Your task to perform on an android device: Toggle the flashlight Image 0: 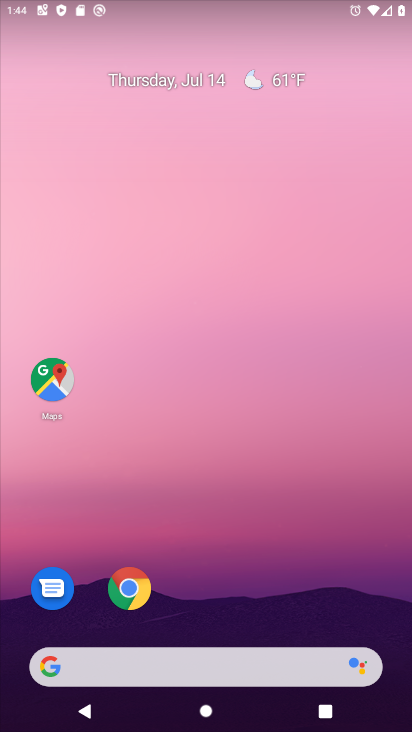
Step 0: drag from (245, 637) to (245, 359)
Your task to perform on an android device: Toggle the flashlight Image 1: 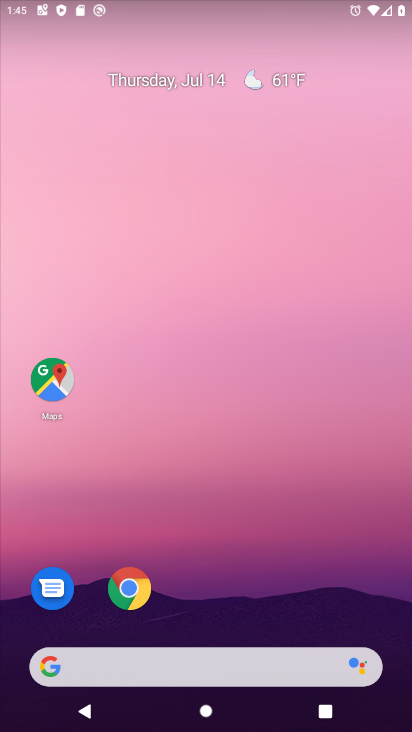
Step 1: drag from (258, 616) to (216, 205)
Your task to perform on an android device: Toggle the flashlight Image 2: 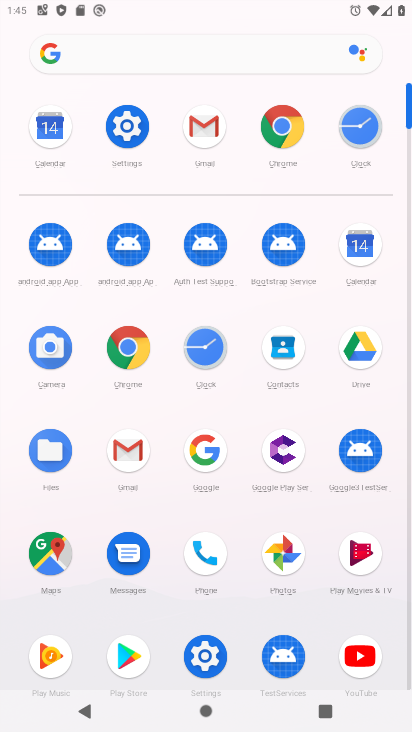
Step 2: click (121, 115)
Your task to perform on an android device: Toggle the flashlight Image 3: 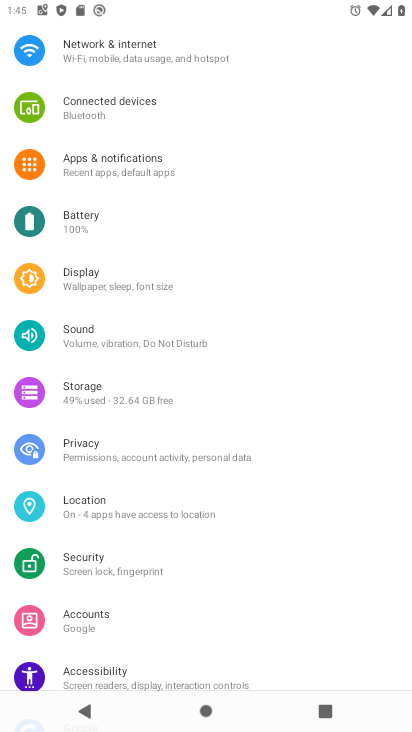
Step 3: task complete